Your task to perform on an android device: Go to settings Image 0: 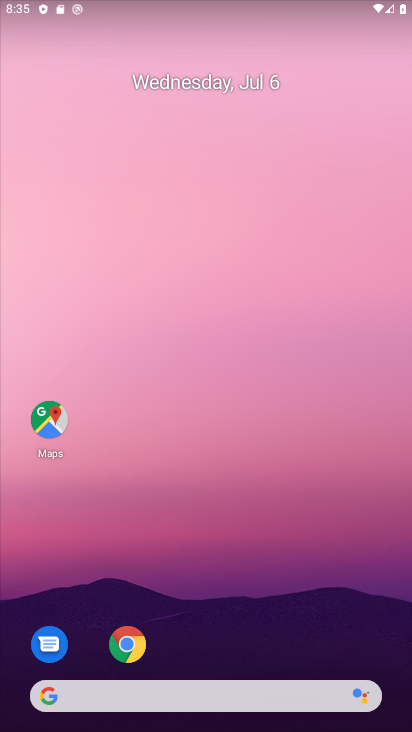
Step 0: drag from (212, 690) to (262, 9)
Your task to perform on an android device: Go to settings Image 1: 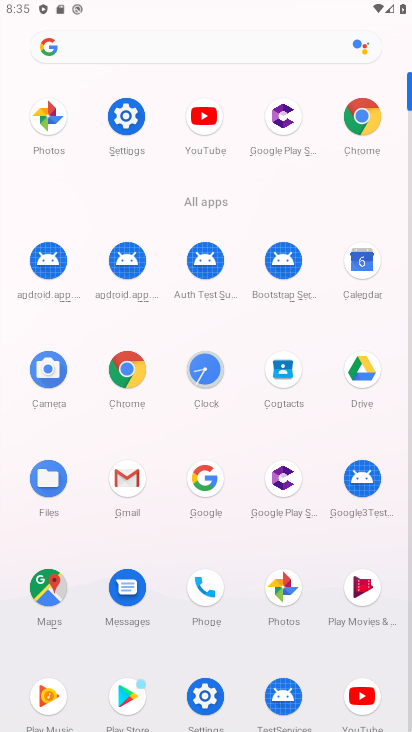
Step 1: click (143, 109)
Your task to perform on an android device: Go to settings Image 2: 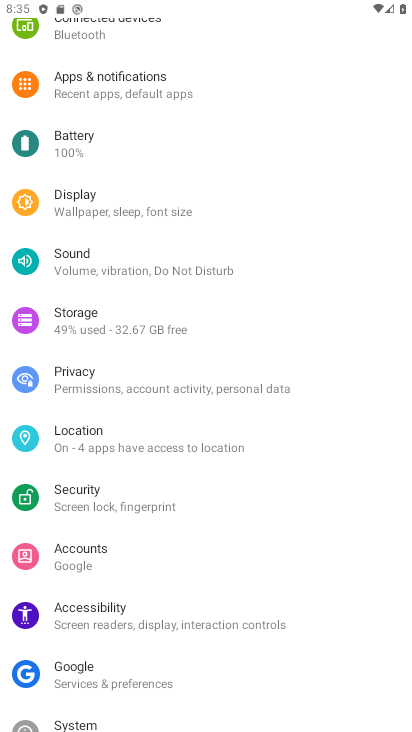
Step 2: task complete